Your task to perform on an android device: change the upload size in google photos Image 0: 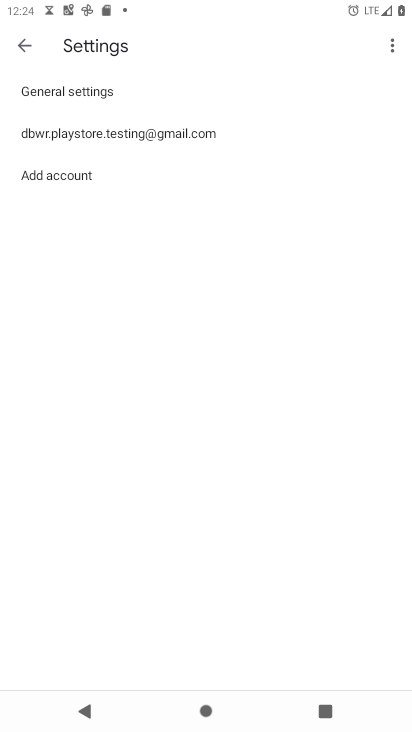
Step 0: press home button
Your task to perform on an android device: change the upload size in google photos Image 1: 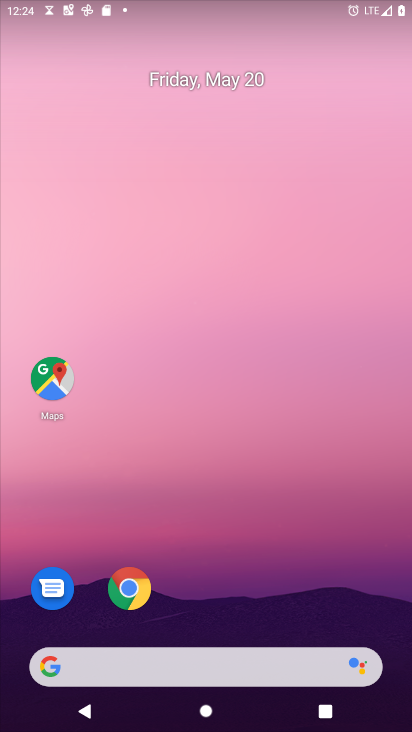
Step 1: drag from (286, 468) to (195, 25)
Your task to perform on an android device: change the upload size in google photos Image 2: 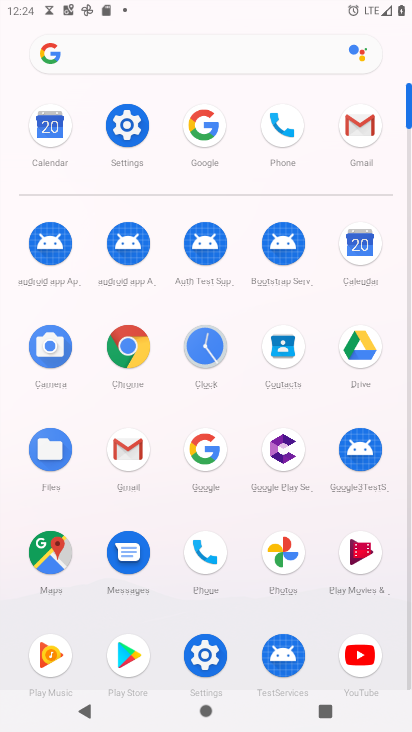
Step 2: click (290, 559)
Your task to perform on an android device: change the upload size in google photos Image 3: 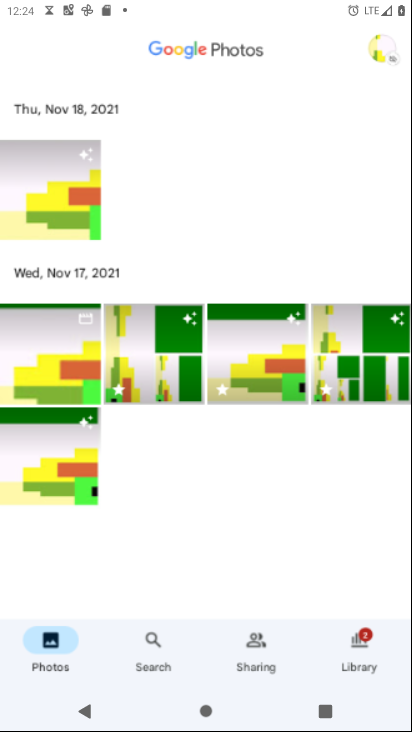
Step 3: click (373, 45)
Your task to perform on an android device: change the upload size in google photos Image 4: 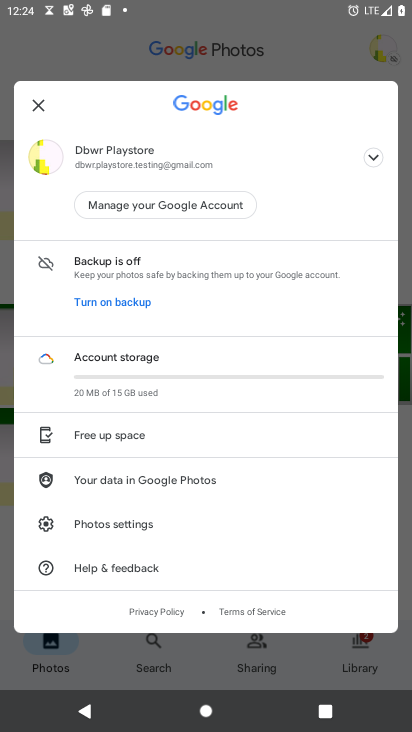
Step 4: click (206, 531)
Your task to perform on an android device: change the upload size in google photos Image 5: 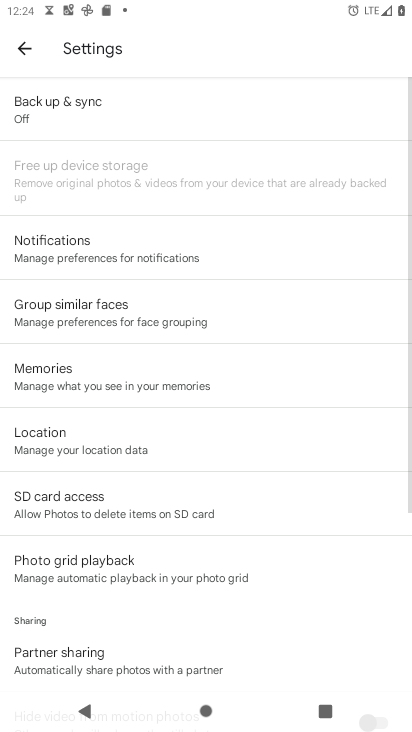
Step 5: click (140, 111)
Your task to perform on an android device: change the upload size in google photos Image 6: 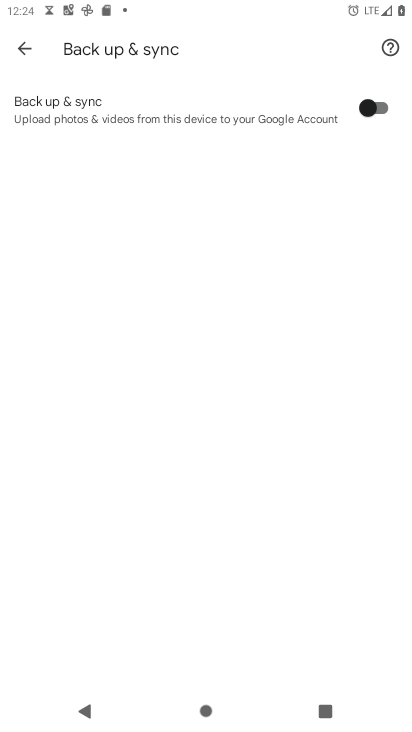
Step 6: click (369, 98)
Your task to perform on an android device: change the upload size in google photos Image 7: 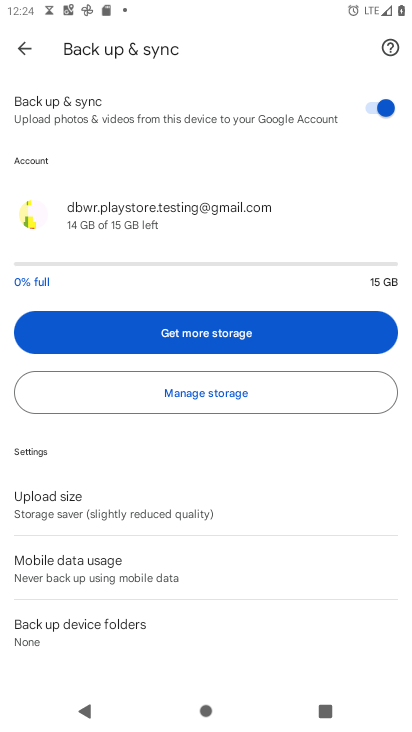
Step 7: click (125, 525)
Your task to perform on an android device: change the upload size in google photos Image 8: 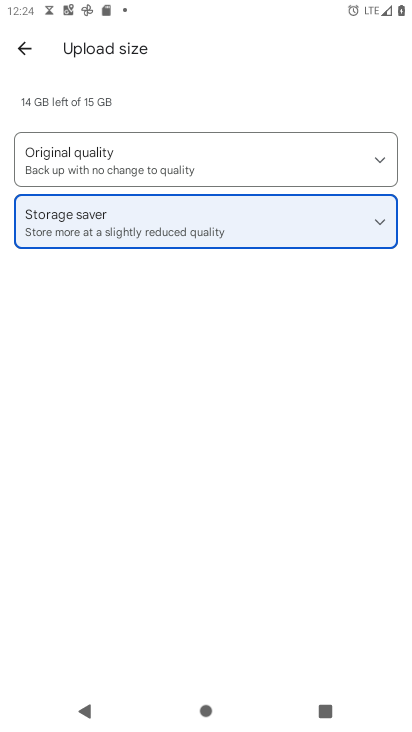
Step 8: click (125, 169)
Your task to perform on an android device: change the upload size in google photos Image 9: 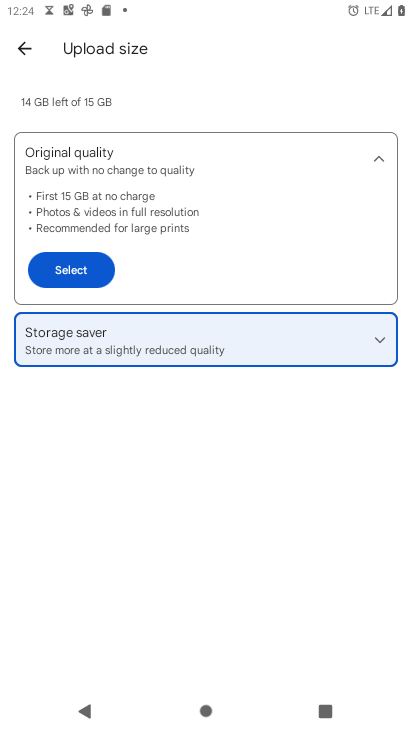
Step 9: click (79, 273)
Your task to perform on an android device: change the upload size in google photos Image 10: 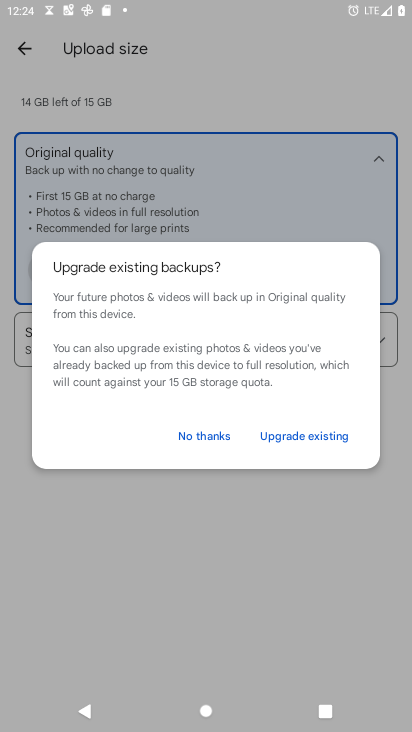
Step 10: click (207, 436)
Your task to perform on an android device: change the upload size in google photos Image 11: 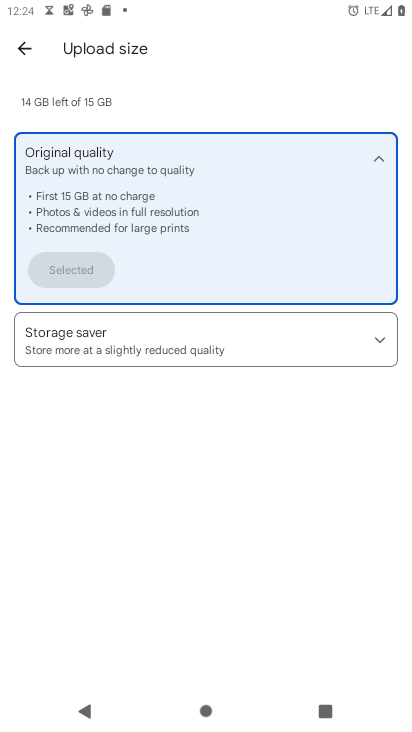
Step 11: task complete